Your task to perform on an android device: turn off improve location accuracy Image 0: 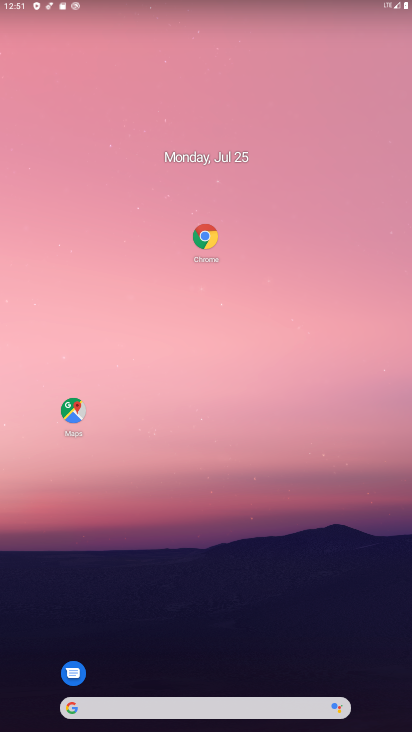
Step 0: drag from (274, 621) to (127, 731)
Your task to perform on an android device: turn off improve location accuracy Image 1: 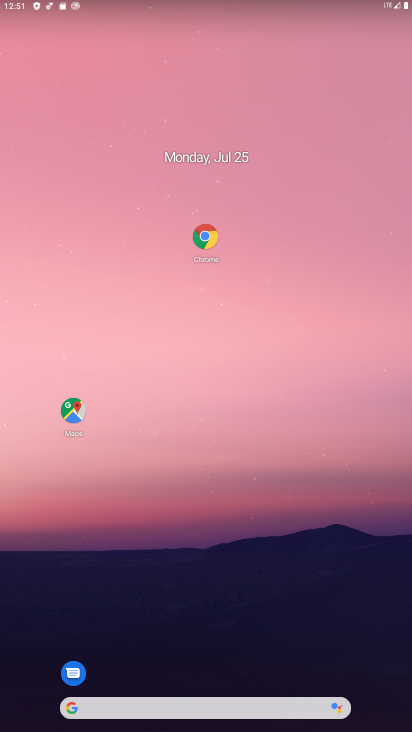
Step 1: drag from (224, 706) to (244, 15)
Your task to perform on an android device: turn off improve location accuracy Image 2: 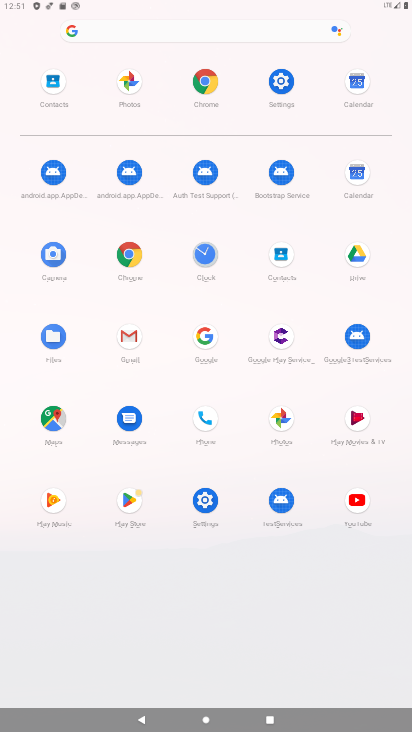
Step 2: click (278, 74)
Your task to perform on an android device: turn off improve location accuracy Image 3: 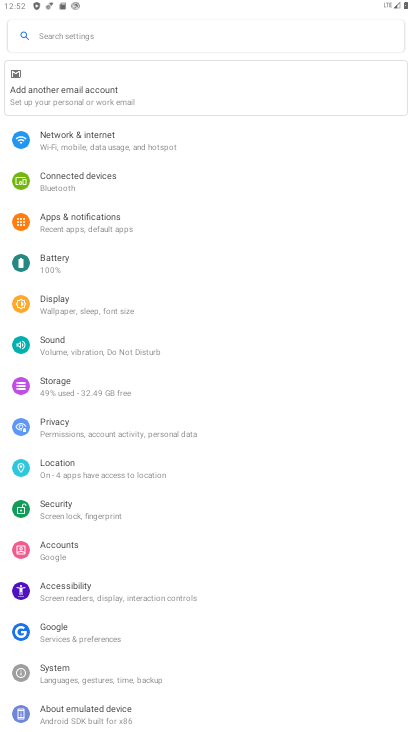
Step 3: click (65, 473)
Your task to perform on an android device: turn off improve location accuracy Image 4: 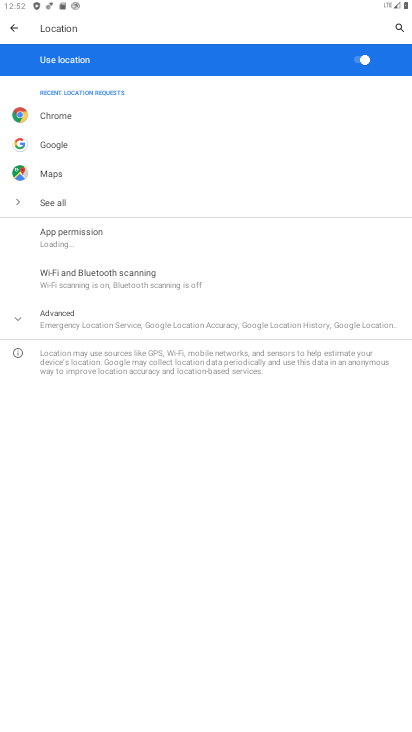
Step 4: click (357, 63)
Your task to perform on an android device: turn off improve location accuracy Image 5: 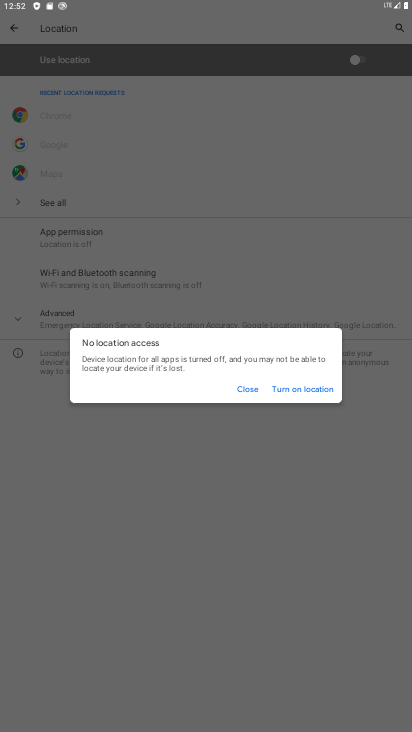
Step 5: click (256, 387)
Your task to perform on an android device: turn off improve location accuracy Image 6: 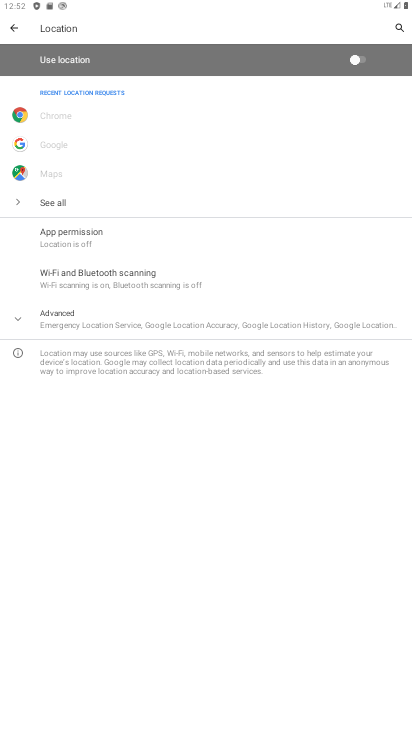
Step 6: press home button
Your task to perform on an android device: turn off improve location accuracy Image 7: 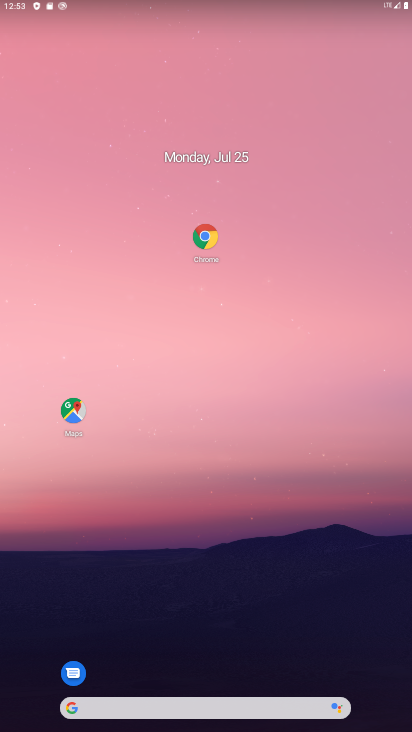
Step 7: drag from (212, 700) to (286, 71)
Your task to perform on an android device: turn off improve location accuracy Image 8: 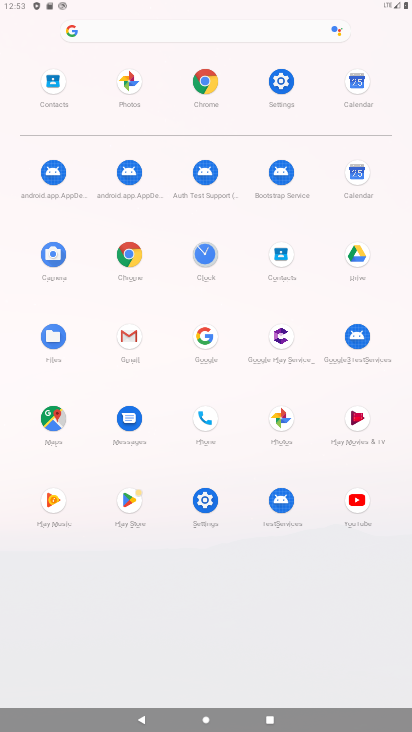
Step 8: click (277, 70)
Your task to perform on an android device: turn off improve location accuracy Image 9: 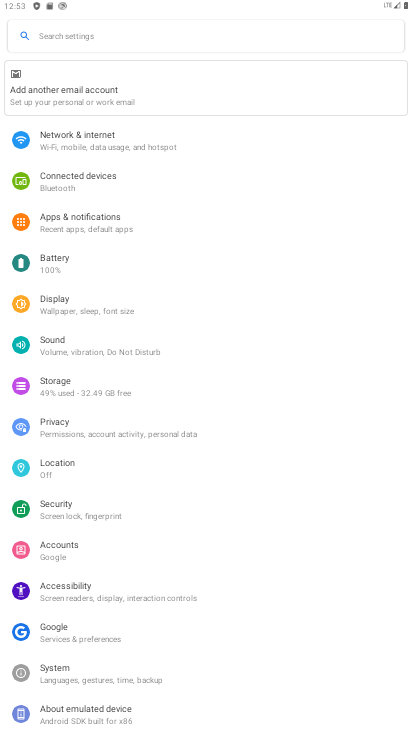
Step 9: click (92, 456)
Your task to perform on an android device: turn off improve location accuracy Image 10: 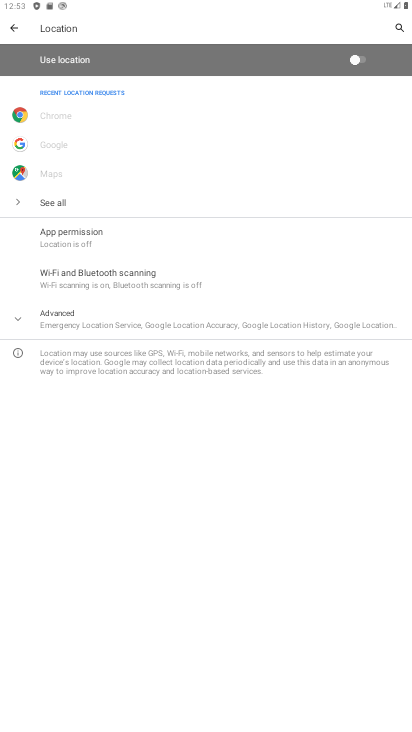
Step 10: click (109, 321)
Your task to perform on an android device: turn off improve location accuracy Image 11: 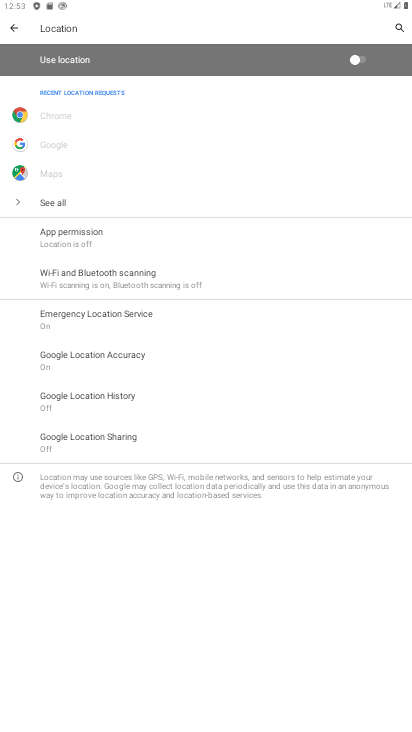
Step 11: click (116, 349)
Your task to perform on an android device: turn off improve location accuracy Image 12: 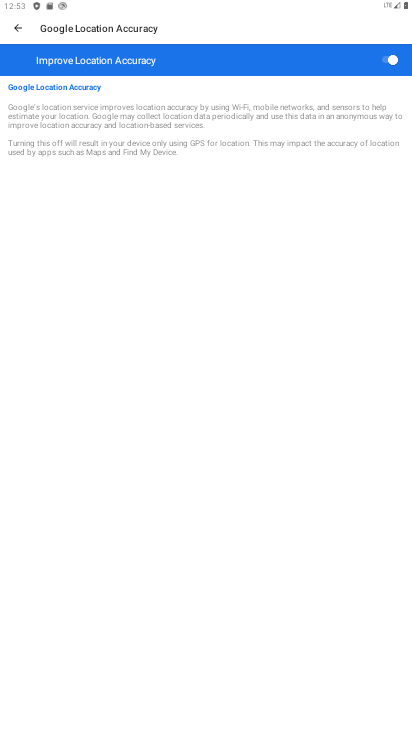
Step 12: click (389, 58)
Your task to perform on an android device: turn off improve location accuracy Image 13: 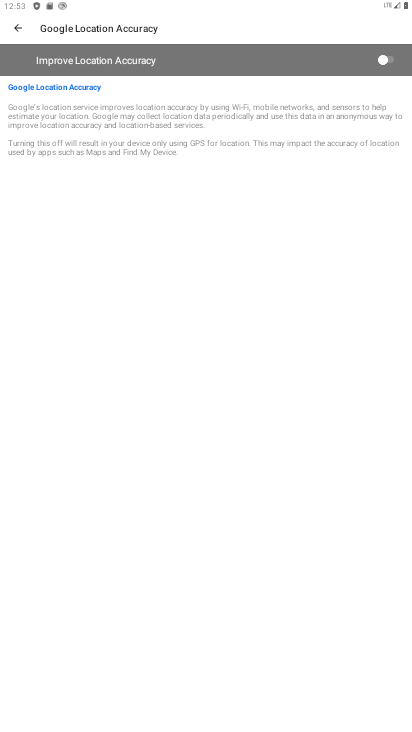
Step 13: task complete